Your task to perform on an android device: all mails in gmail Image 0: 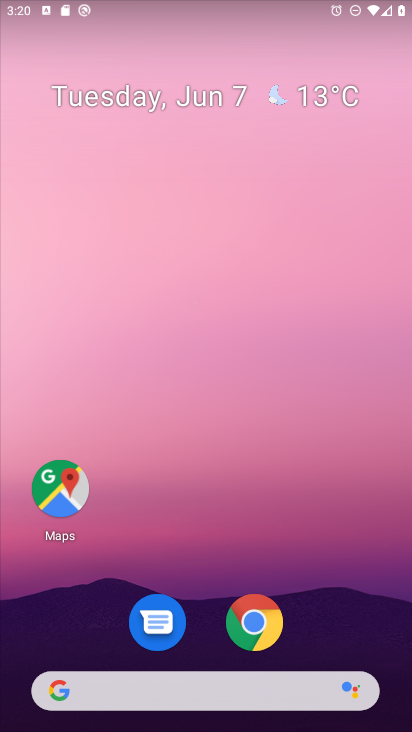
Step 0: drag from (328, 628) to (231, 99)
Your task to perform on an android device: all mails in gmail Image 1: 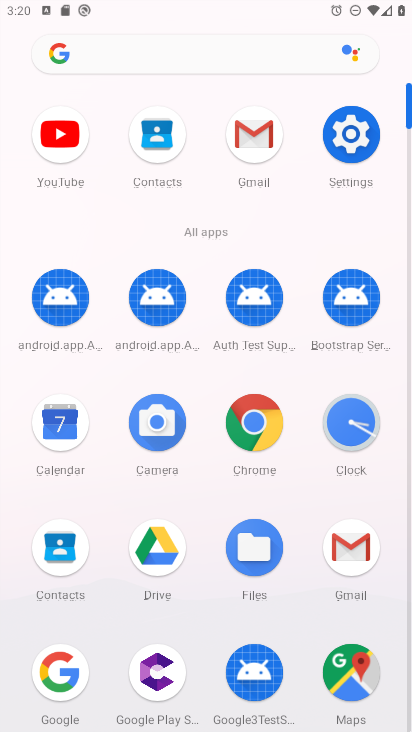
Step 1: click (240, 139)
Your task to perform on an android device: all mails in gmail Image 2: 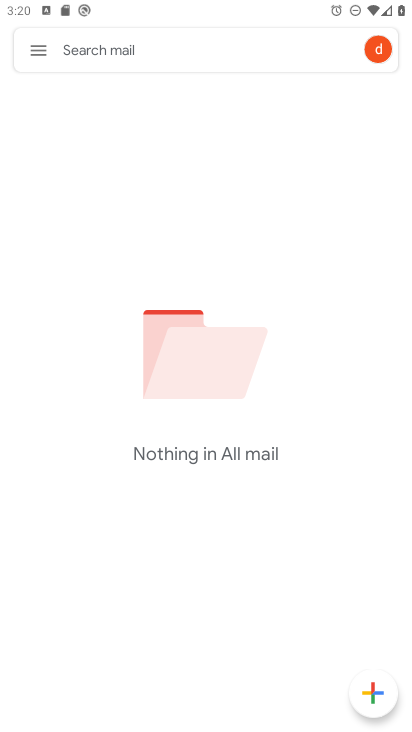
Step 2: task complete